Your task to perform on an android device: turn off location Image 0: 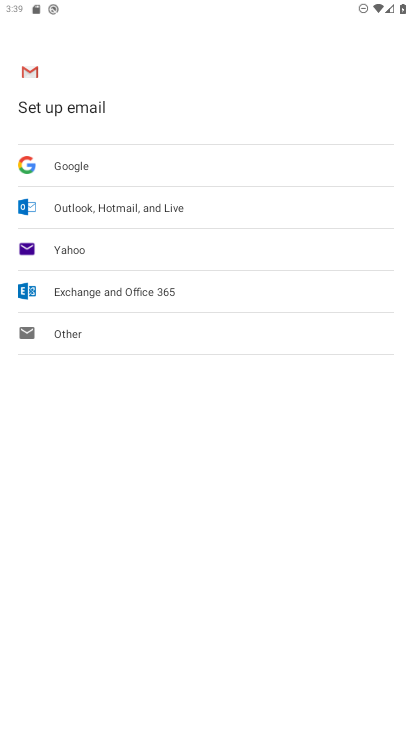
Step 0: press home button
Your task to perform on an android device: turn off location Image 1: 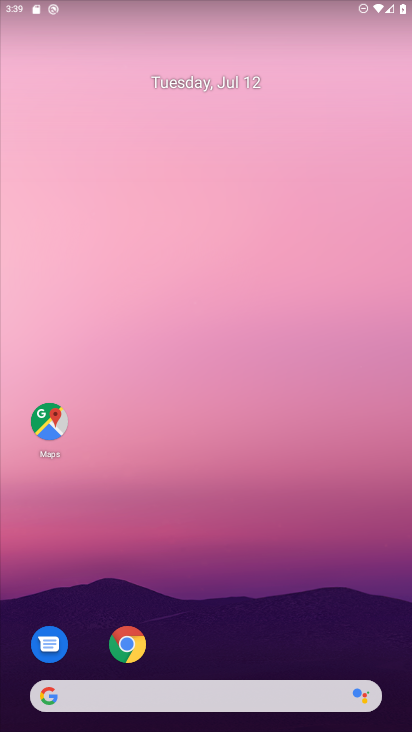
Step 1: drag from (300, 598) to (145, 15)
Your task to perform on an android device: turn off location Image 2: 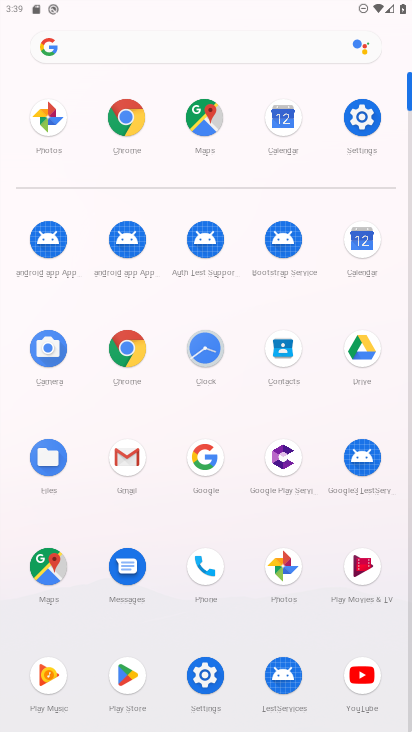
Step 2: click (367, 118)
Your task to perform on an android device: turn off location Image 3: 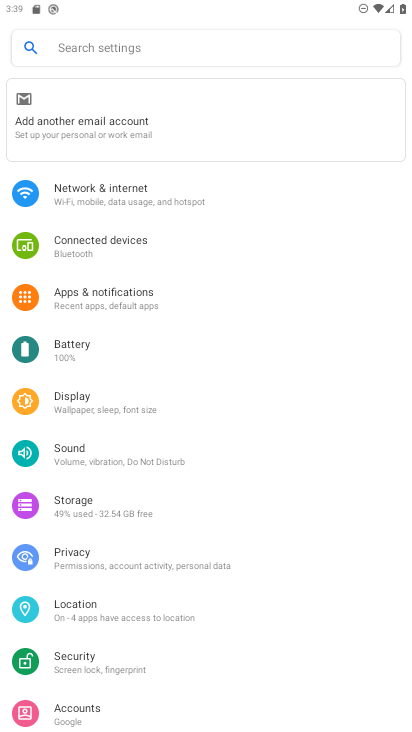
Step 3: click (127, 607)
Your task to perform on an android device: turn off location Image 4: 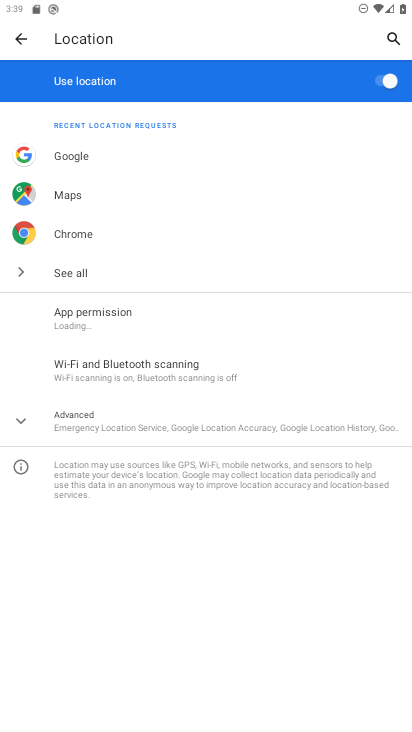
Step 4: click (379, 79)
Your task to perform on an android device: turn off location Image 5: 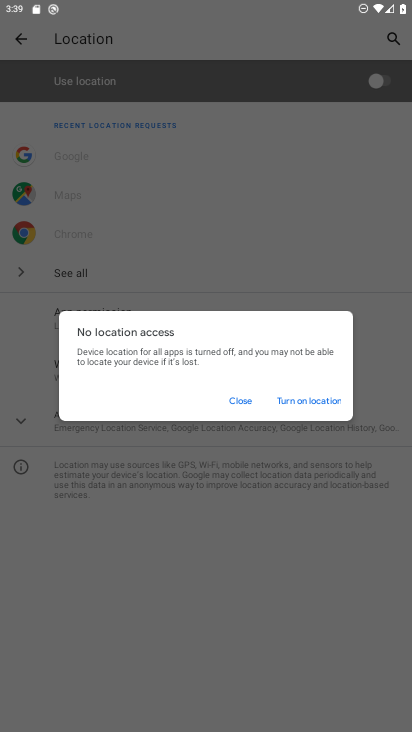
Step 5: task complete